Your task to perform on an android device: toggle pop-ups in chrome Image 0: 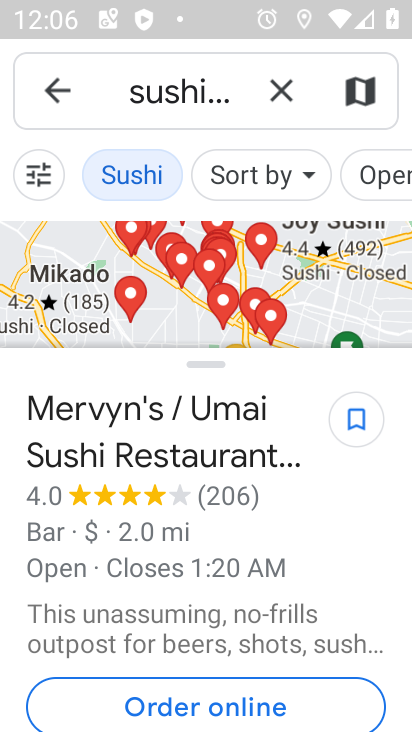
Step 0: press home button
Your task to perform on an android device: toggle pop-ups in chrome Image 1: 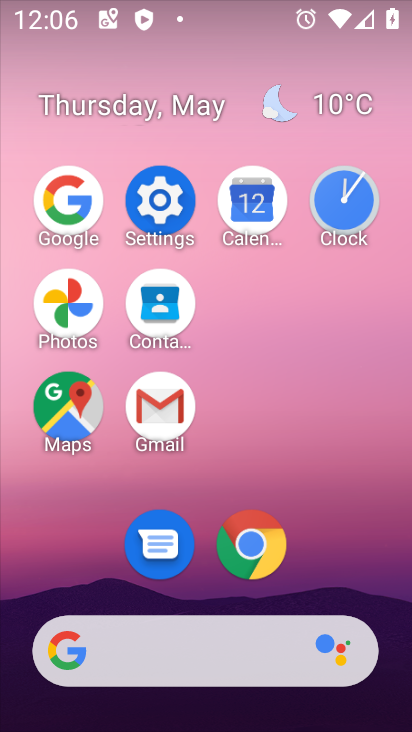
Step 1: click (267, 542)
Your task to perform on an android device: toggle pop-ups in chrome Image 2: 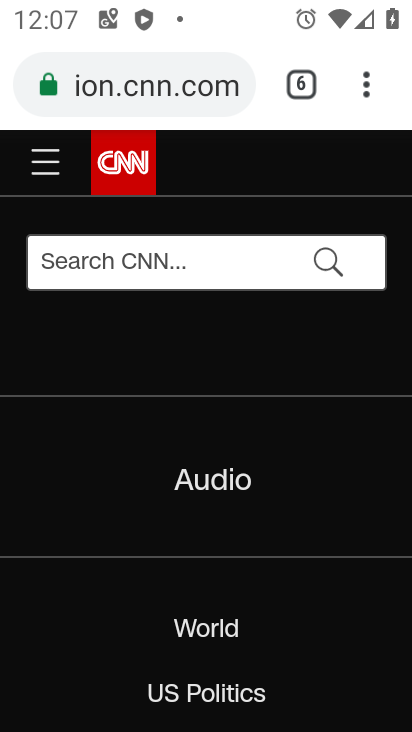
Step 2: click (376, 89)
Your task to perform on an android device: toggle pop-ups in chrome Image 3: 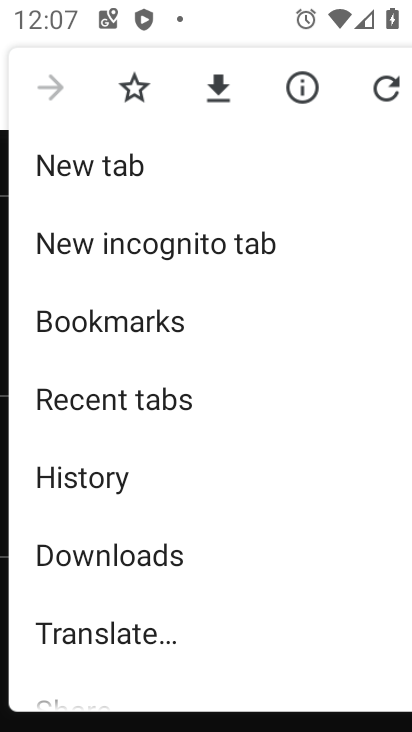
Step 3: drag from (190, 642) to (249, 182)
Your task to perform on an android device: toggle pop-ups in chrome Image 4: 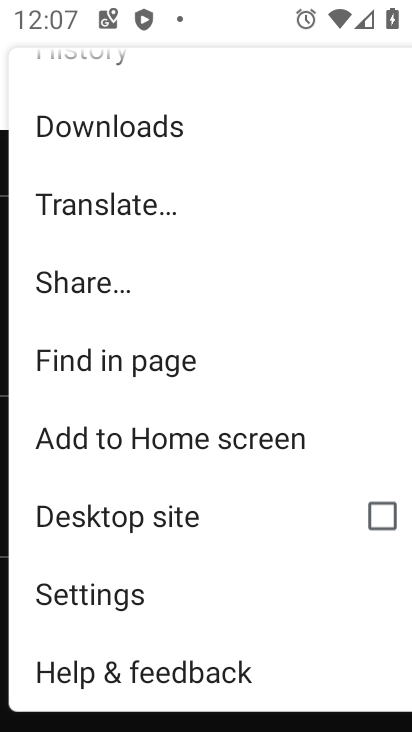
Step 4: click (168, 583)
Your task to perform on an android device: toggle pop-ups in chrome Image 5: 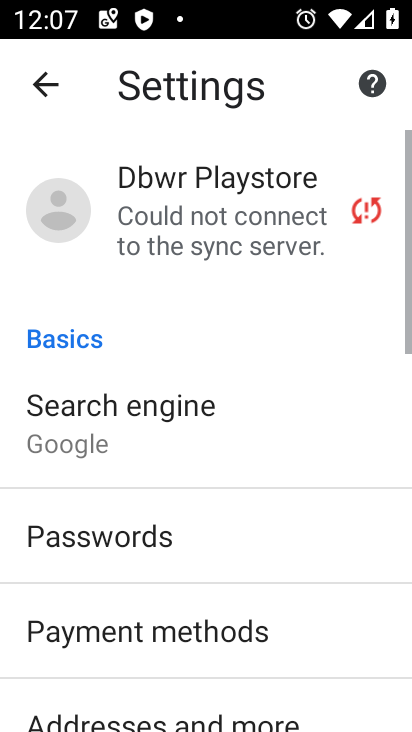
Step 5: drag from (201, 663) to (267, 216)
Your task to perform on an android device: toggle pop-ups in chrome Image 6: 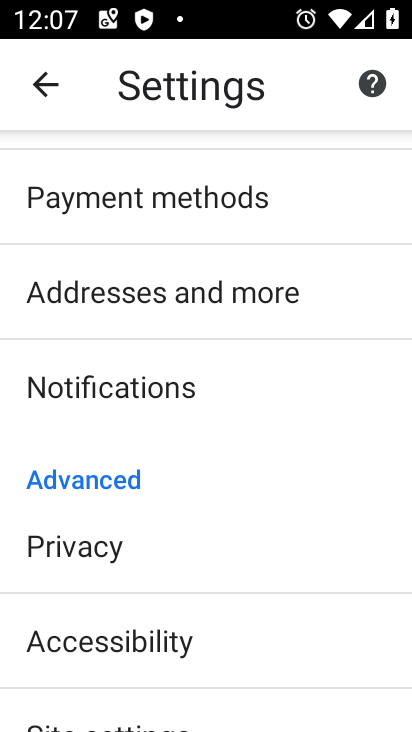
Step 6: drag from (181, 623) to (233, 178)
Your task to perform on an android device: toggle pop-ups in chrome Image 7: 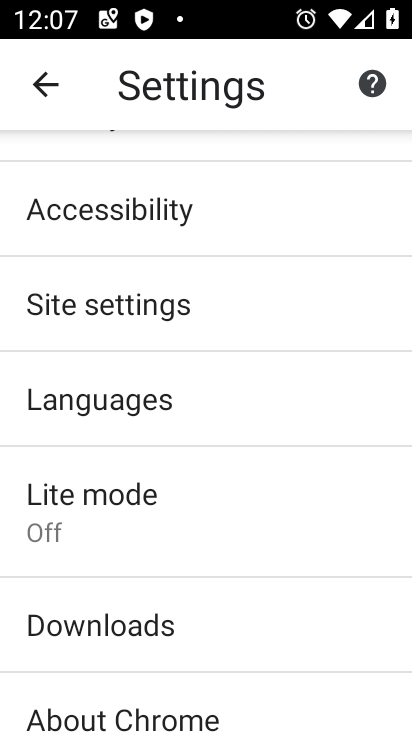
Step 7: drag from (200, 568) to (233, 241)
Your task to perform on an android device: toggle pop-ups in chrome Image 8: 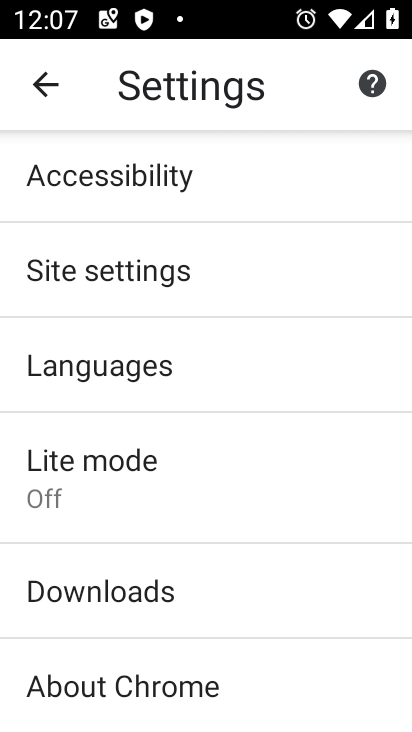
Step 8: click (236, 278)
Your task to perform on an android device: toggle pop-ups in chrome Image 9: 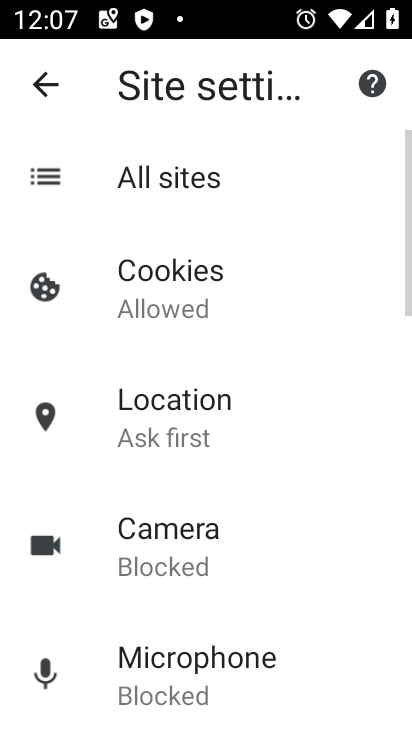
Step 9: drag from (260, 639) to (278, 234)
Your task to perform on an android device: toggle pop-ups in chrome Image 10: 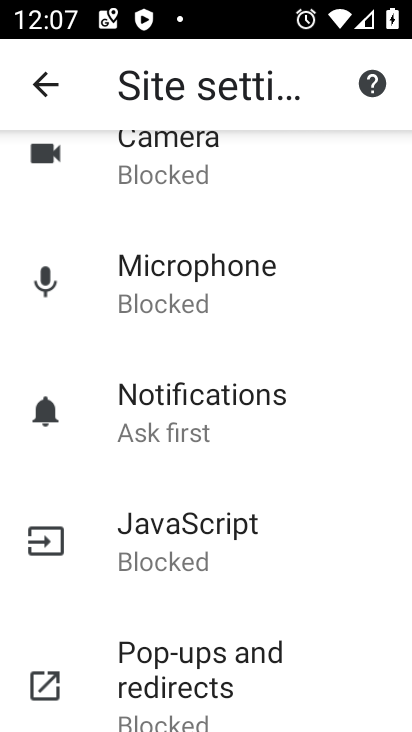
Step 10: drag from (274, 606) to (271, 331)
Your task to perform on an android device: toggle pop-ups in chrome Image 11: 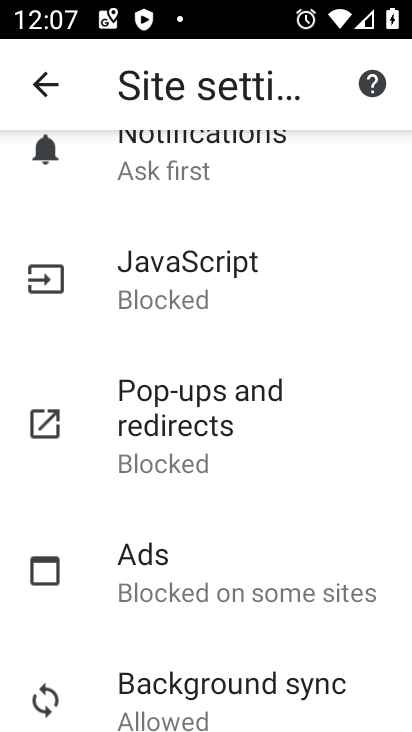
Step 11: click (248, 417)
Your task to perform on an android device: toggle pop-ups in chrome Image 12: 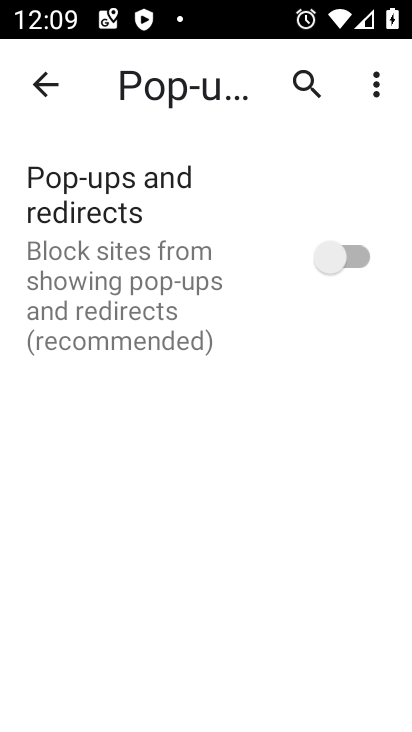
Step 12: task complete